Your task to perform on an android device: Search for Italian restaurants on Maps Image 0: 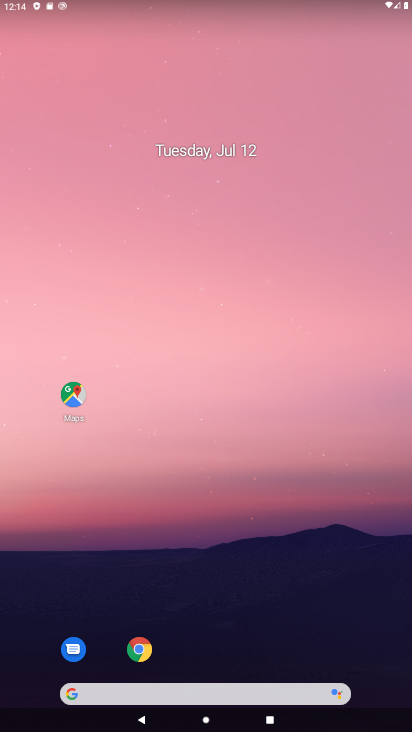
Step 0: drag from (370, 673) to (277, 61)
Your task to perform on an android device: Search for Italian restaurants on Maps Image 1: 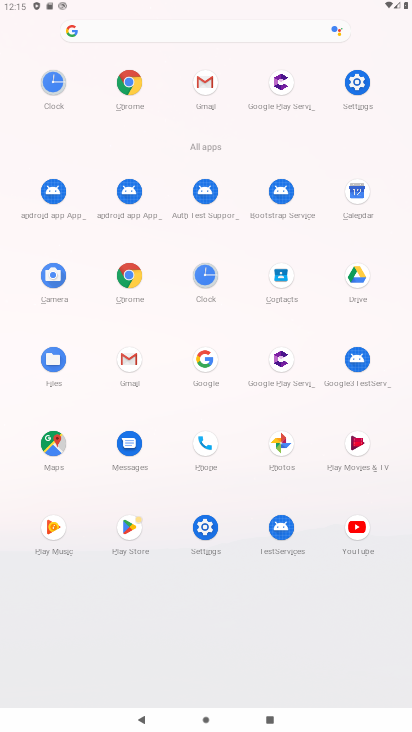
Step 1: click (57, 435)
Your task to perform on an android device: Search for Italian restaurants on Maps Image 2: 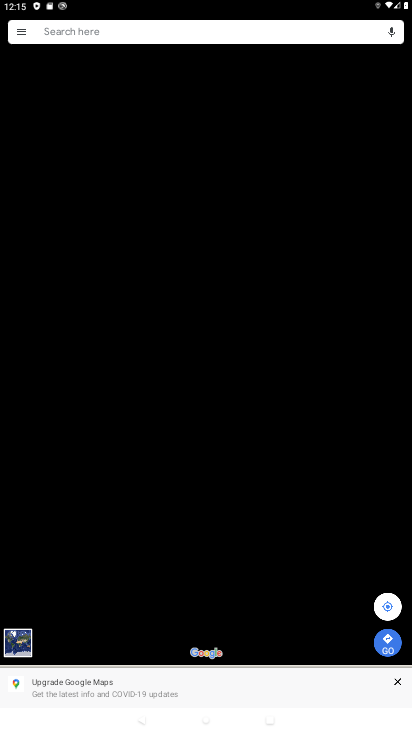
Step 2: click (147, 34)
Your task to perform on an android device: Search for Italian restaurants on Maps Image 3: 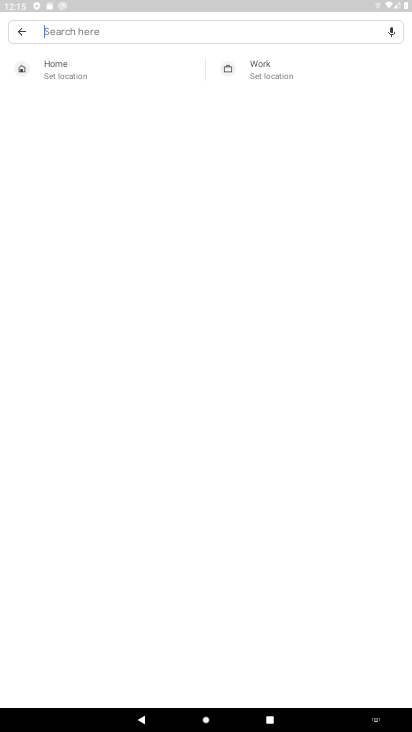
Step 3: type "Italian restaurants"
Your task to perform on an android device: Search for Italian restaurants on Maps Image 4: 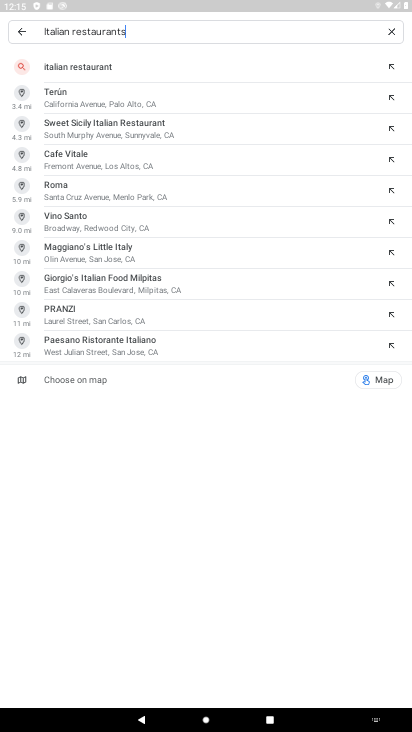
Step 4: click (70, 60)
Your task to perform on an android device: Search for Italian restaurants on Maps Image 5: 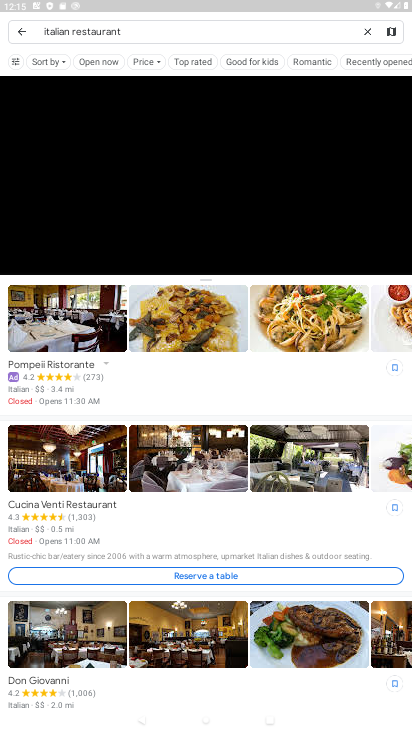
Step 5: task complete